Your task to perform on an android device: turn on notifications settings in the gmail app Image 0: 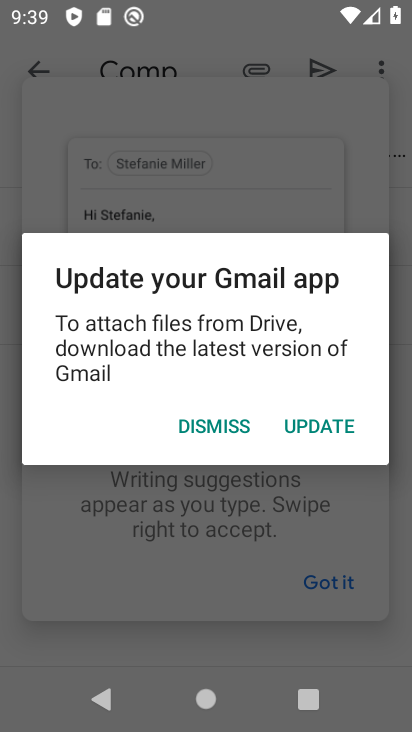
Step 0: press home button
Your task to perform on an android device: turn on notifications settings in the gmail app Image 1: 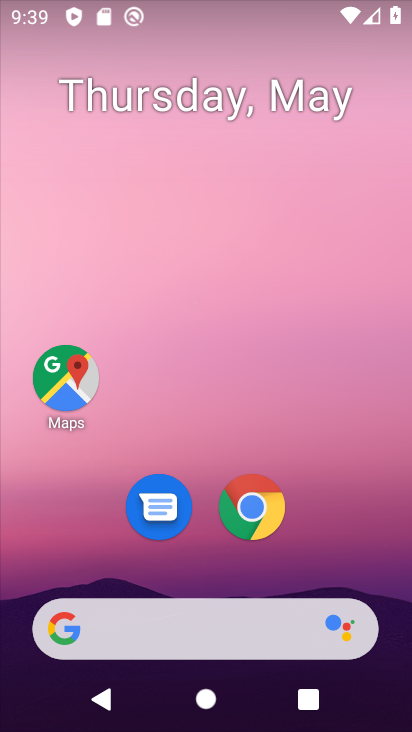
Step 1: drag from (359, 558) to (288, 148)
Your task to perform on an android device: turn on notifications settings in the gmail app Image 2: 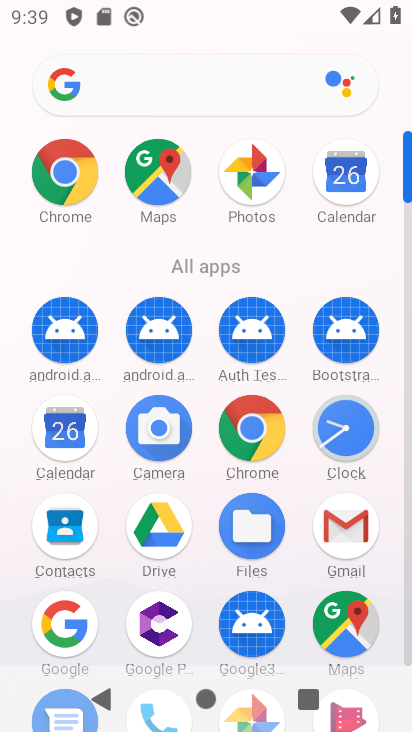
Step 2: click (352, 530)
Your task to perform on an android device: turn on notifications settings in the gmail app Image 3: 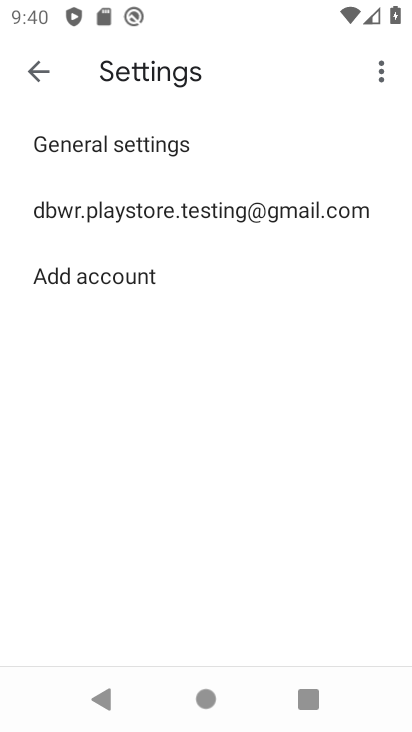
Step 3: click (244, 210)
Your task to perform on an android device: turn on notifications settings in the gmail app Image 4: 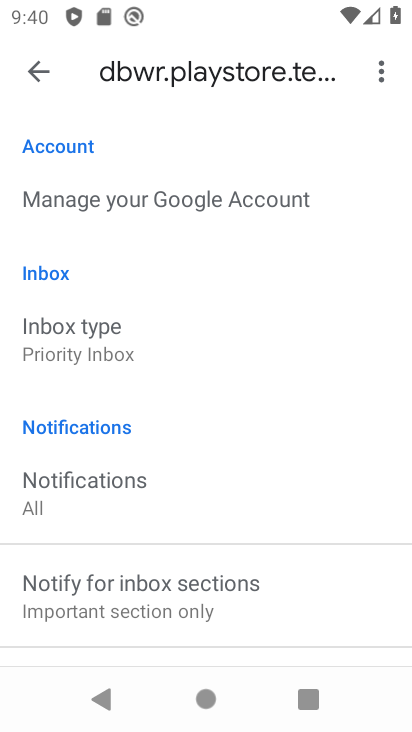
Step 4: drag from (241, 562) to (219, 230)
Your task to perform on an android device: turn on notifications settings in the gmail app Image 5: 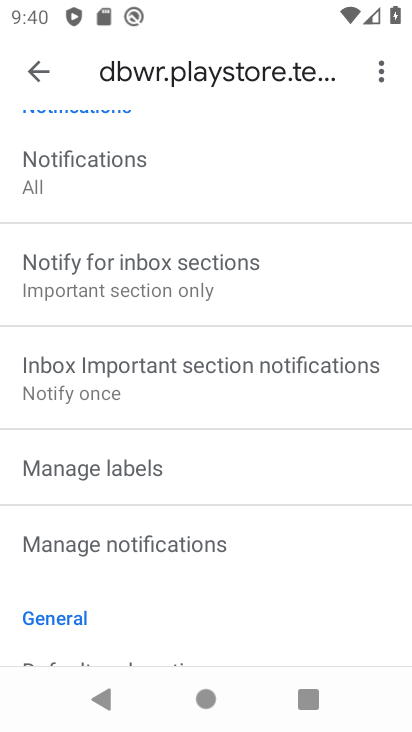
Step 5: click (208, 532)
Your task to perform on an android device: turn on notifications settings in the gmail app Image 6: 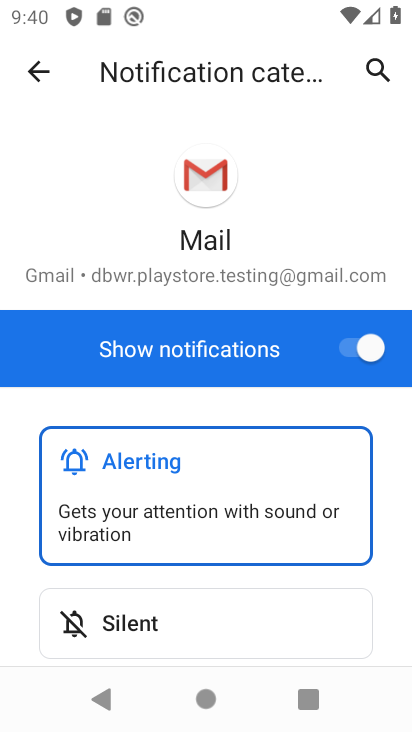
Step 6: task complete